Your task to perform on an android device: turn off improve location accuracy Image 0: 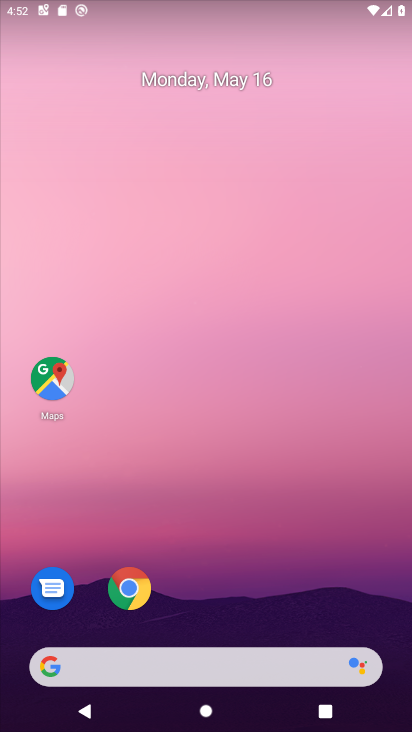
Step 0: drag from (269, 603) to (170, 100)
Your task to perform on an android device: turn off improve location accuracy Image 1: 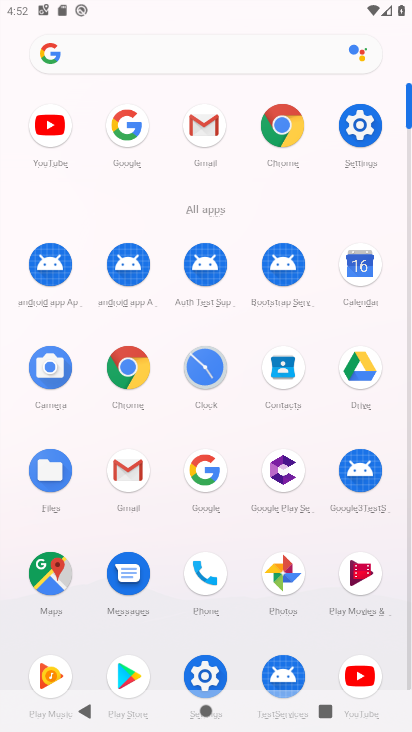
Step 1: click (366, 119)
Your task to perform on an android device: turn off improve location accuracy Image 2: 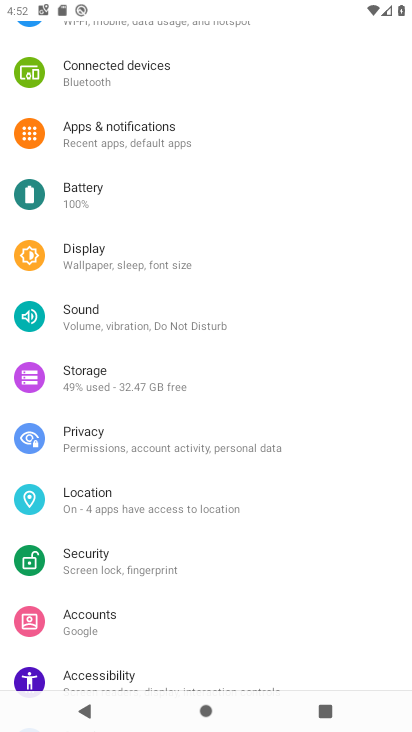
Step 2: click (162, 506)
Your task to perform on an android device: turn off improve location accuracy Image 3: 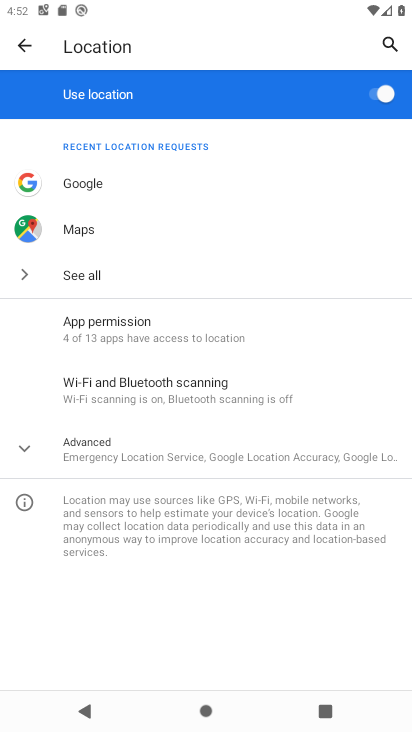
Step 3: click (147, 444)
Your task to perform on an android device: turn off improve location accuracy Image 4: 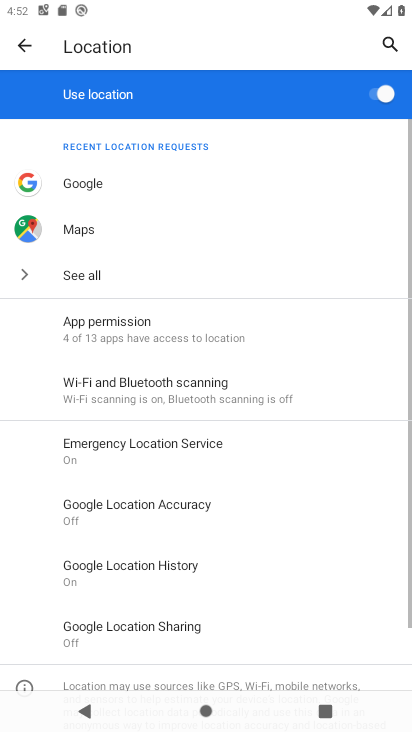
Step 4: click (196, 504)
Your task to perform on an android device: turn off improve location accuracy Image 5: 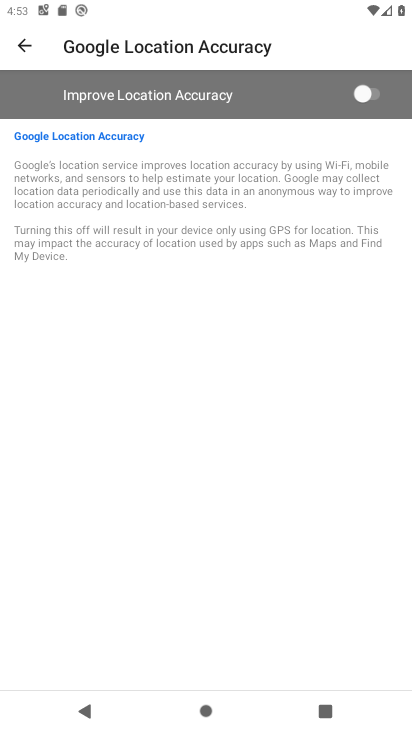
Step 5: task complete